Your task to perform on an android device: check storage Image 0: 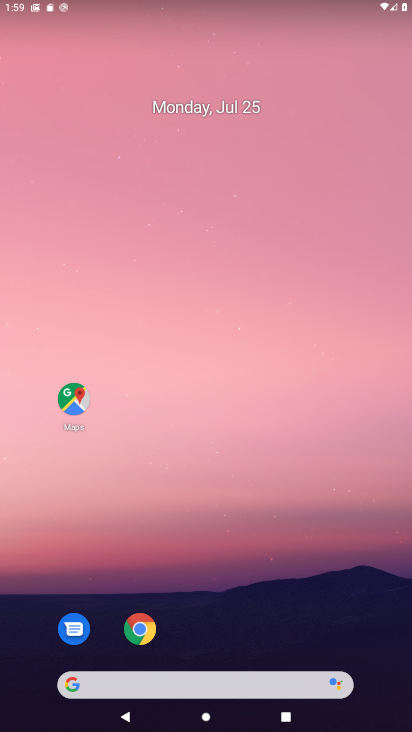
Step 0: drag from (305, 631) to (278, 67)
Your task to perform on an android device: check storage Image 1: 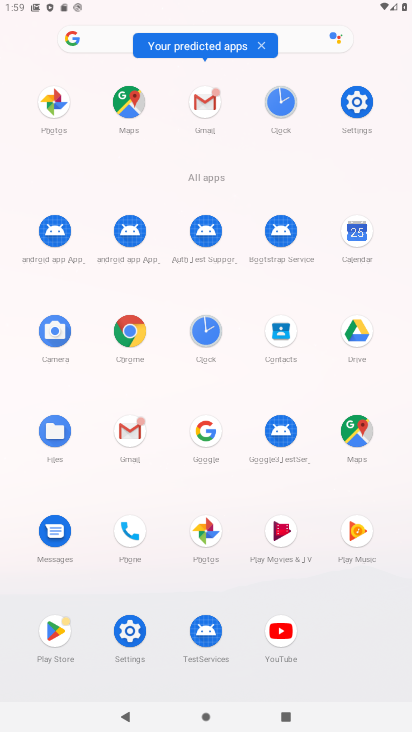
Step 1: click (368, 105)
Your task to perform on an android device: check storage Image 2: 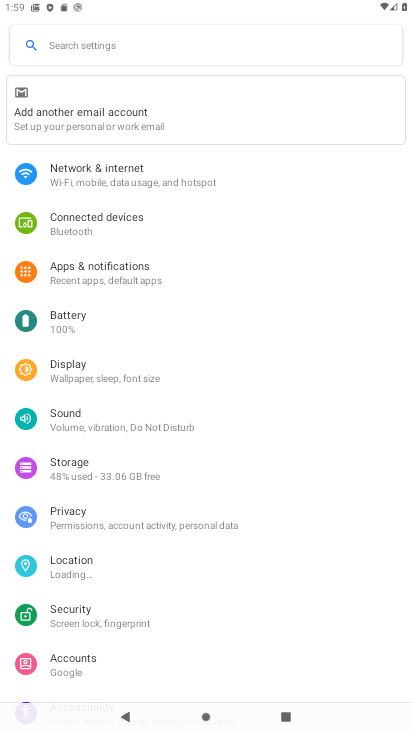
Step 2: click (148, 473)
Your task to perform on an android device: check storage Image 3: 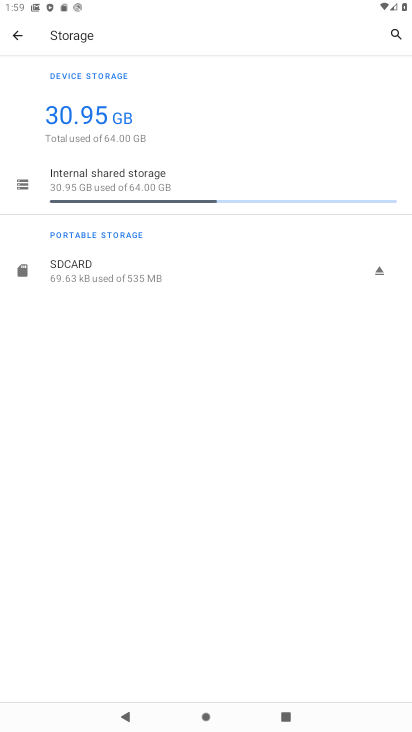
Step 3: task complete